Your task to perform on an android device: open app "Google Duo" (install if not already installed) Image 0: 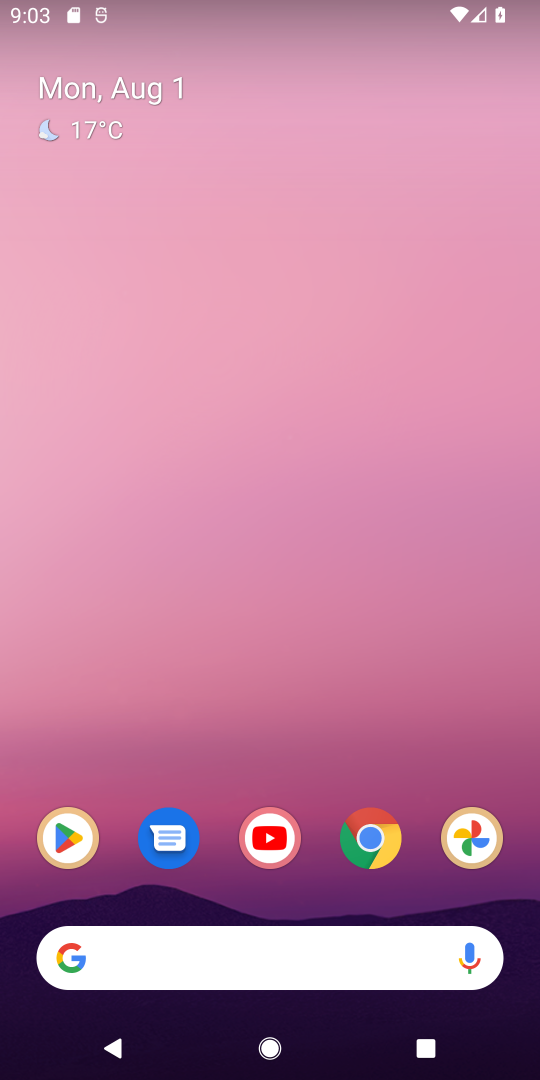
Step 0: press home button
Your task to perform on an android device: open app "Google Duo" (install if not already installed) Image 1: 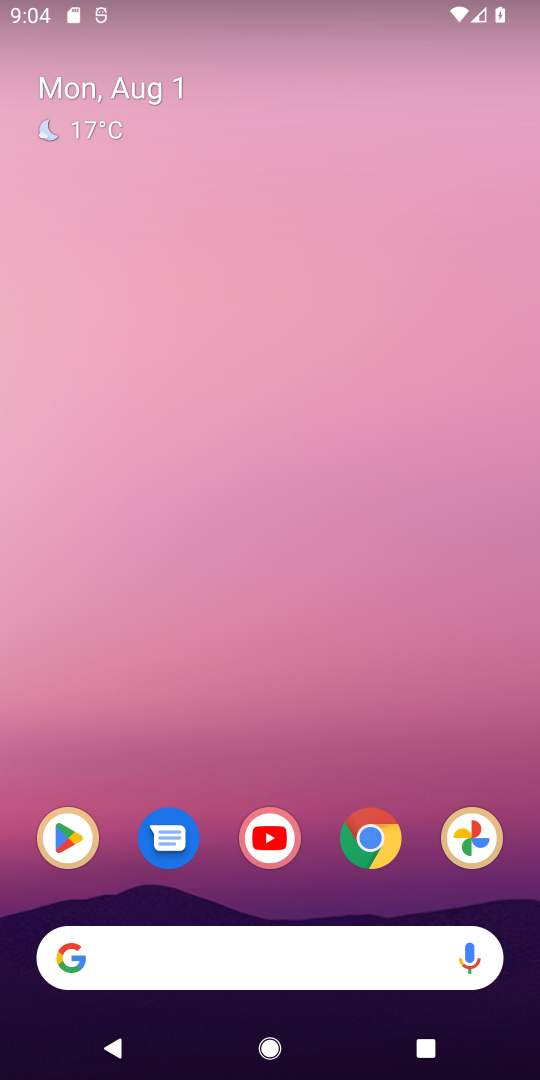
Step 1: click (62, 829)
Your task to perform on an android device: open app "Google Duo" (install if not already installed) Image 2: 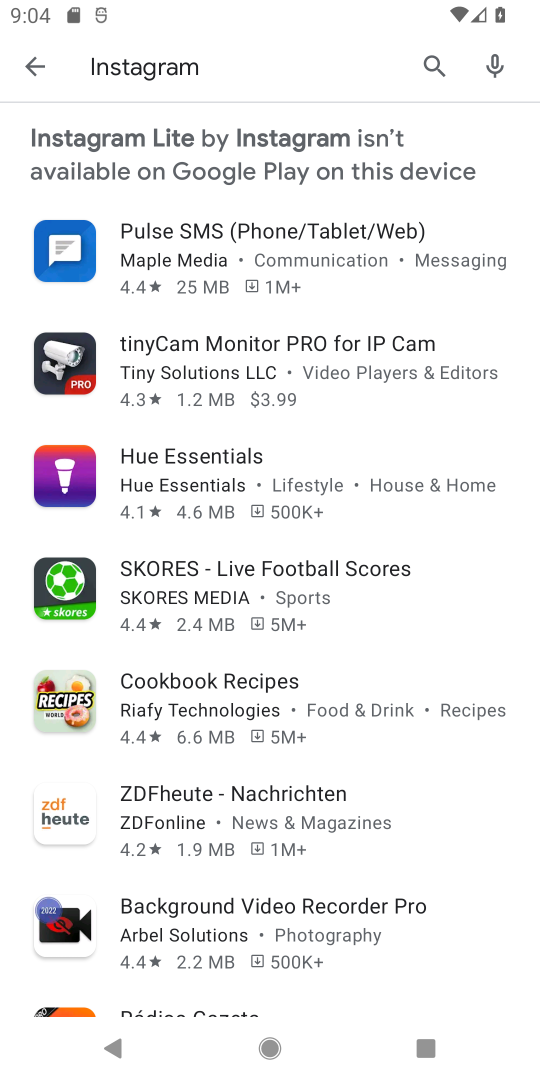
Step 2: click (437, 59)
Your task to perform on an android device: open app "Google Duo" (install if not already installed) Image 3: 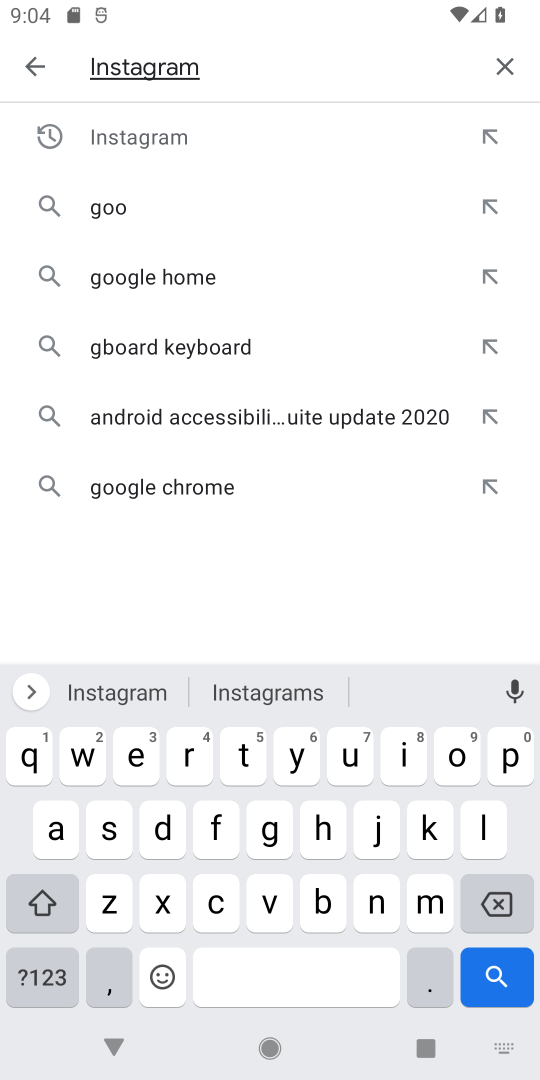
Step 3: click (505, 64)
Your task to perform on an android device: open app "Google Duo" (install if not already installed) Image 4: 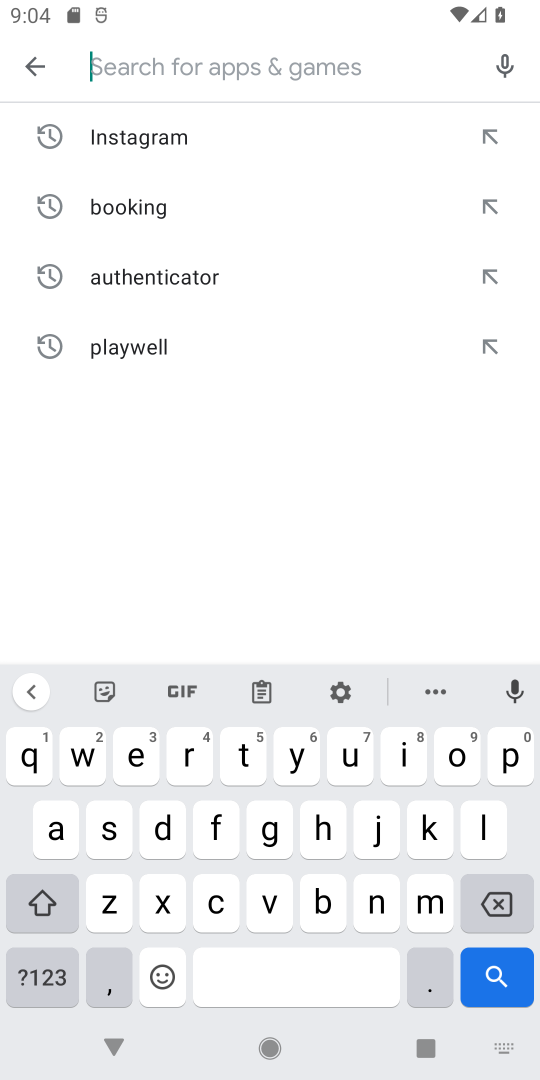
Step 4: click (162, 840)
Your task to perform on an android device: open app "Google Duo" (install if not already installed) Image 5: 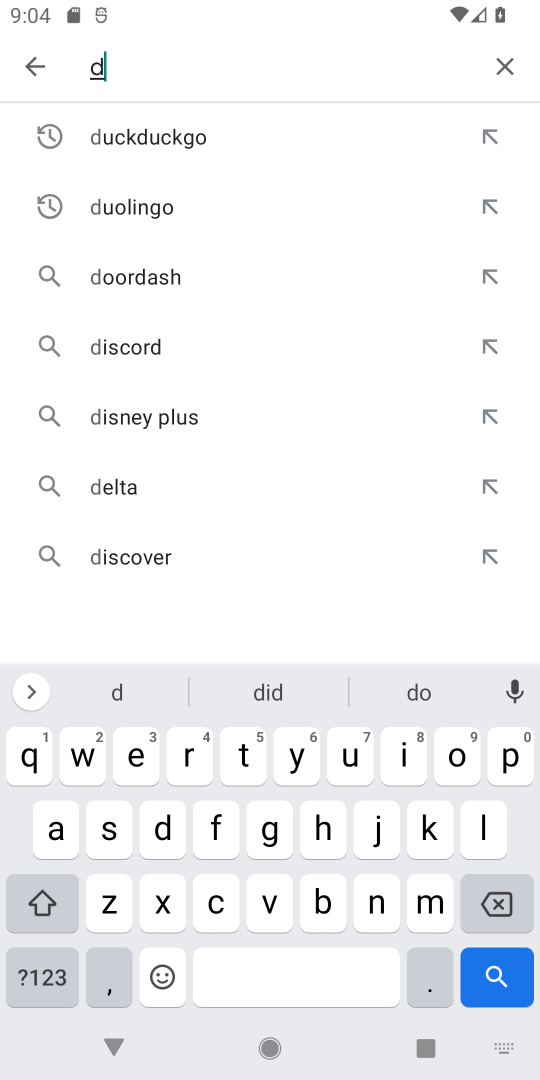
Step 5: click (348, 759)
Your task to perform on an android device: open app "Google Duo" (install if not already installed) Image 6: 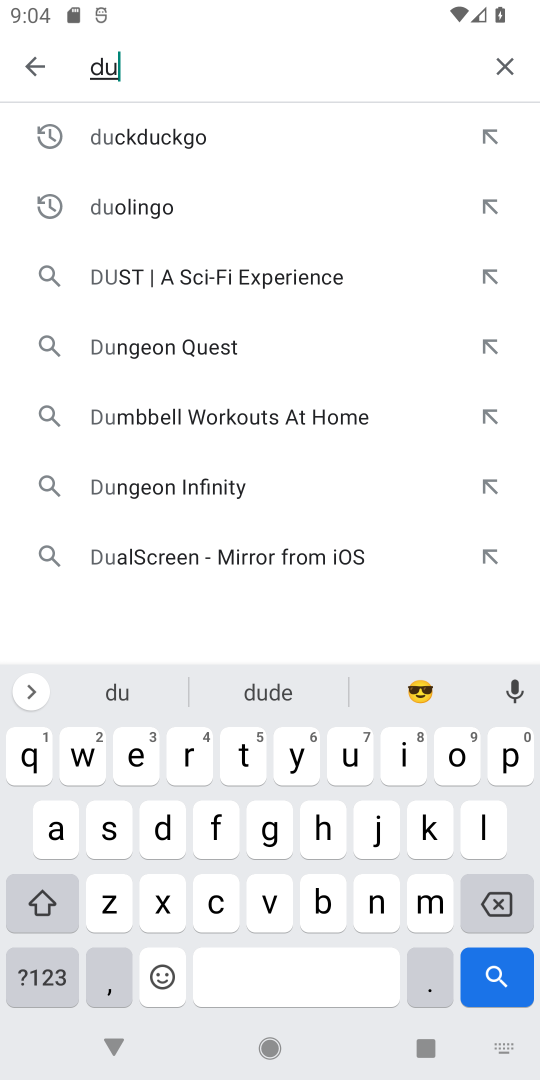
Step 6: click (51, 831)
Your task to perform on an android device: open app "Google Duo" (install if not already installed) Image 7: 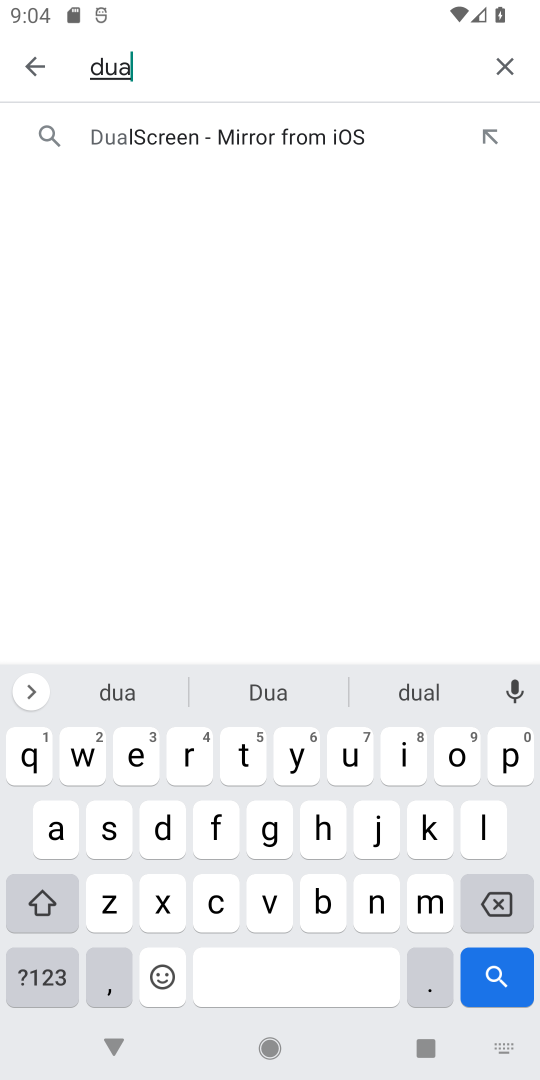
Step 7: click (490, 983)
Your task to perform on an android device: open app "Google Duo" (install if not already installed) Image 8: 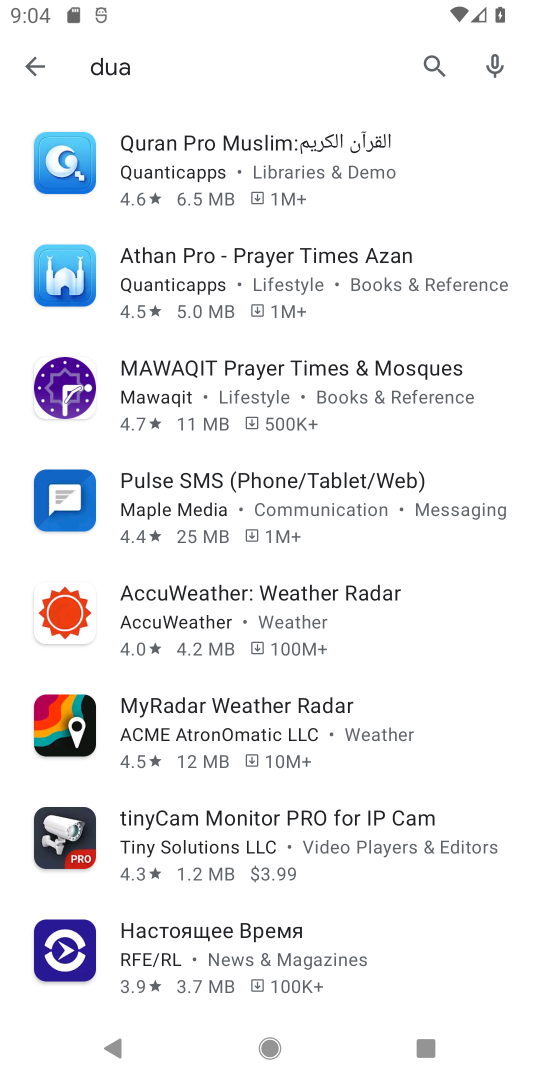
Step 8: click (184, 71)
Your task to perform on an android device: open app "Google Duo" (install if not already installed) Image 9: 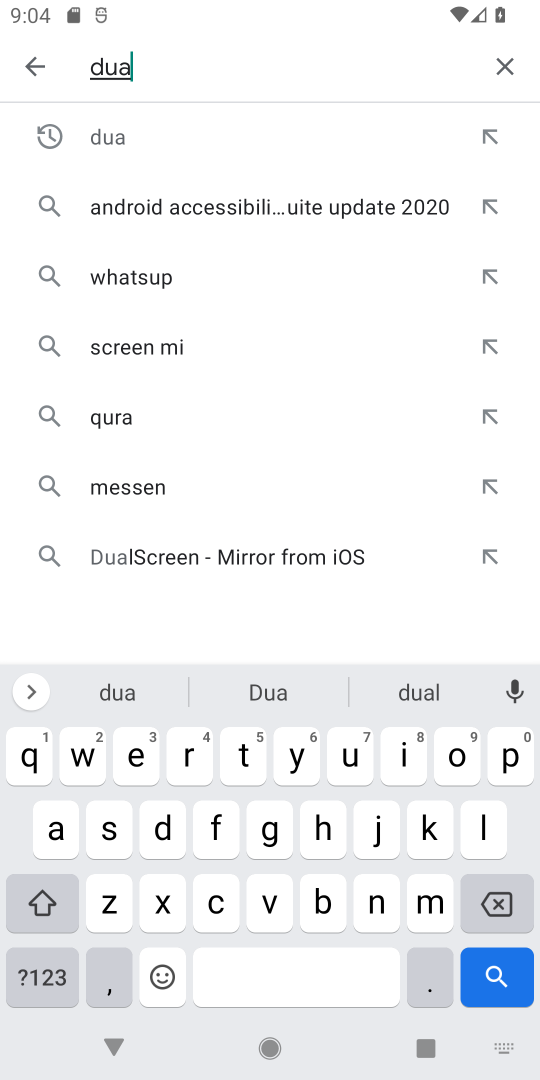
Step 9: click (498, 906)
Your task to perform on an android device: open app "Google Duo" (install if not already installed) Image 10: 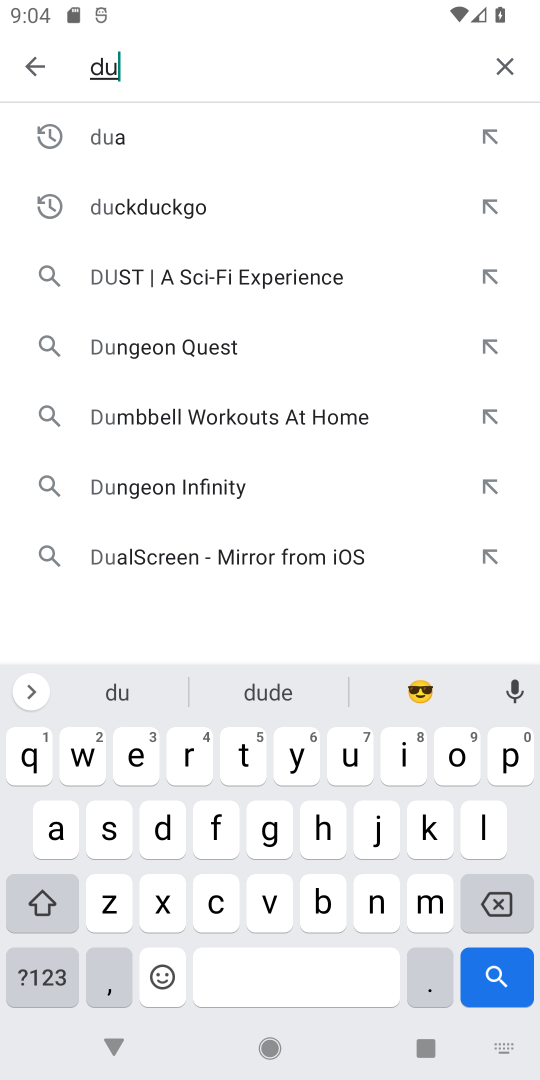
Step 10: click (453, 765)
Your task to perform on an android device: open app "Google Duo" (install if not already installed) Image 11: 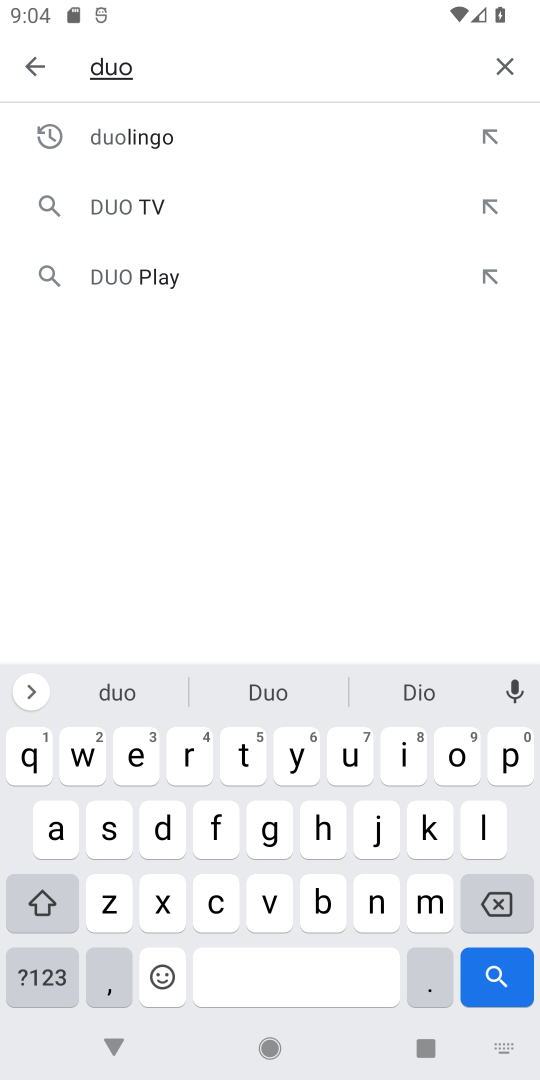
Step 11: click (492, 984)
Your task to perform on an android device: open app "Google Duo" (install if not already installed) Image 12: 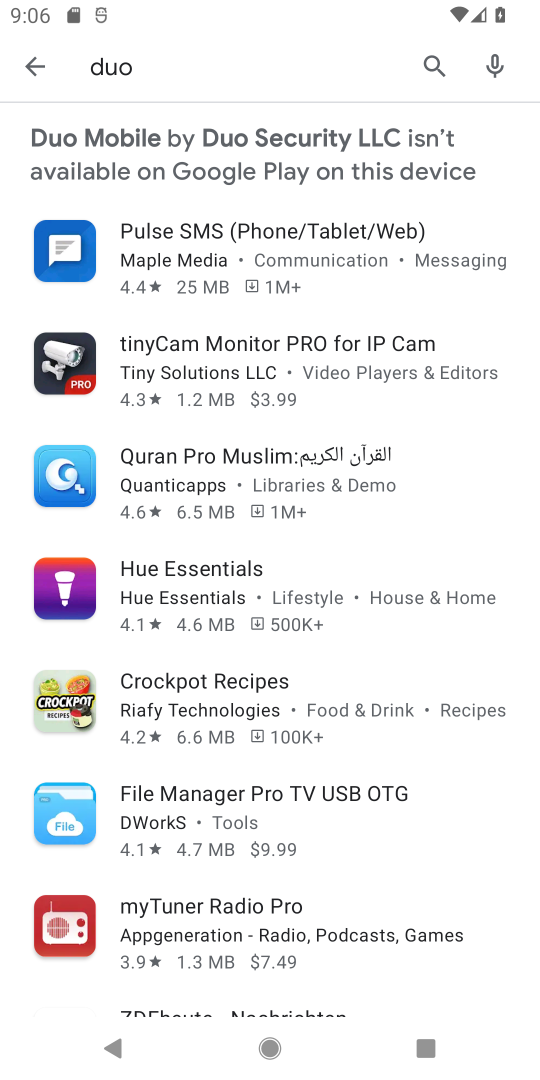
Step 12: task complete